Your task to perform on an android device: toggle notifications settings in the gmail app Image 0: 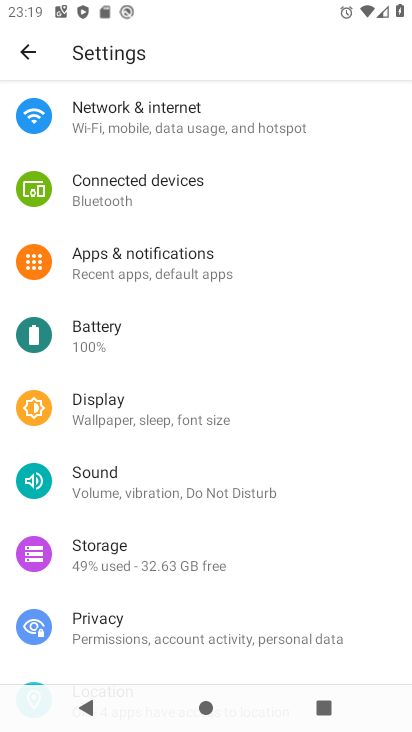
Step 0: press home button
Your task to perform on an android device: toggle notifications settings in the gmail app Image 1: 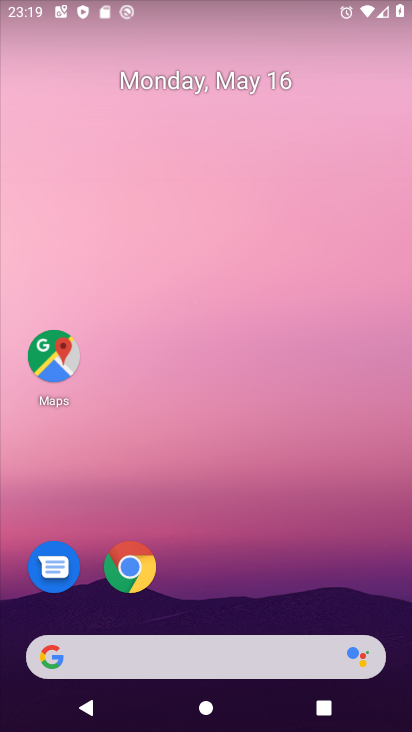
Step 1: drag from (220, 508) to (185, 217)
Your task to perform on an android device: toggle notifications settings in the gmail app Image 2: 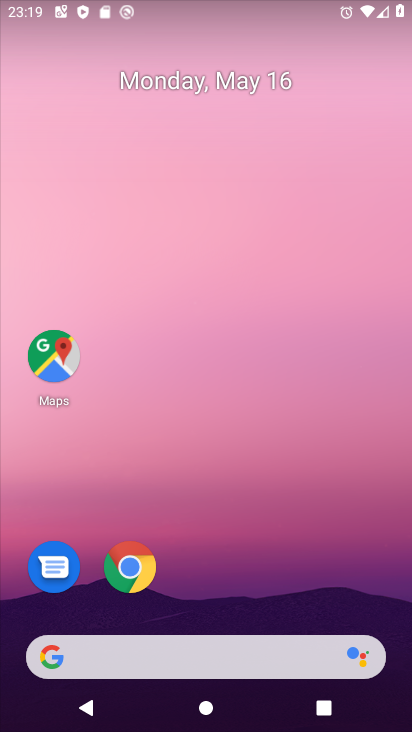
Step 2: drag from (230, 475) to (185, 123)
Your task to perform on an android device: toggle notifications settings in the gmail app Image 3: 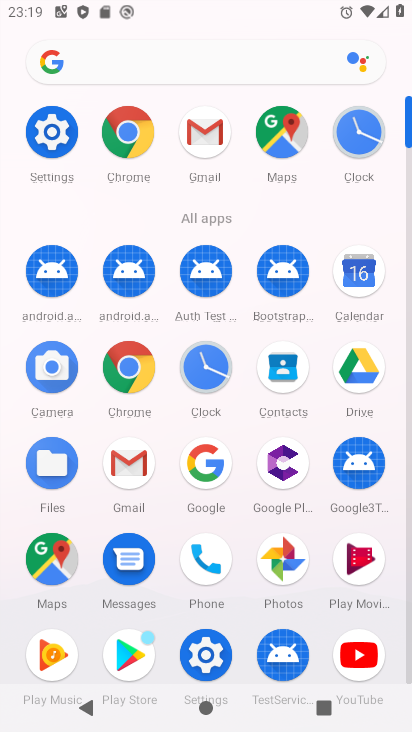
Step 3: click (125, 452)
Your task to perform on an android device: toggle notifications settings in the gmail app Image 4: 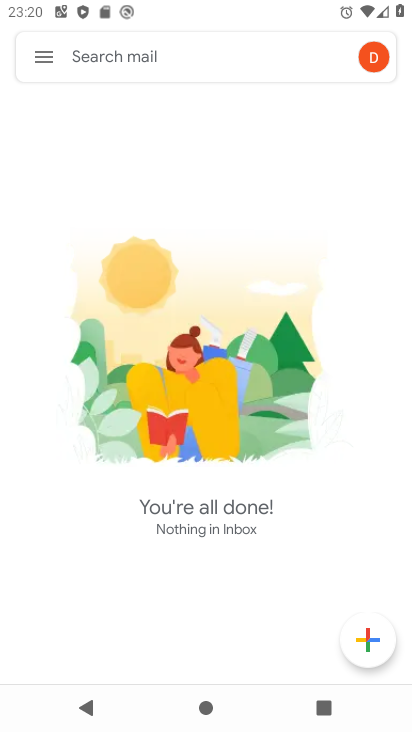
Step 4: click (42, 55)
Your task to perform on an android device: toggle notifications settings in the gmail app Image 5: 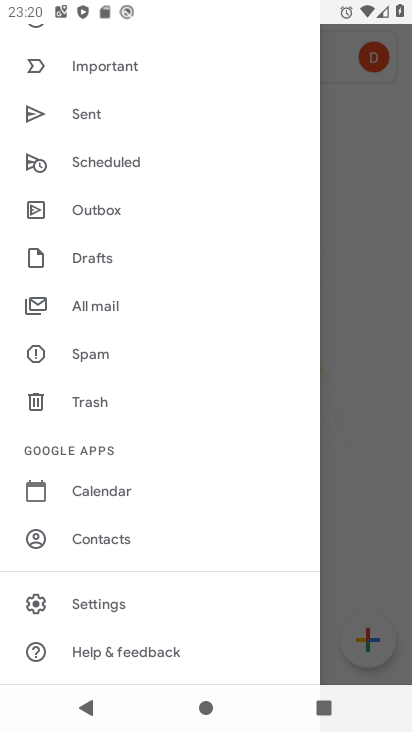
Step 5: click (102, 601)
Your task to perform on an android device: toggle notifications settings in the gmail app Image 6: 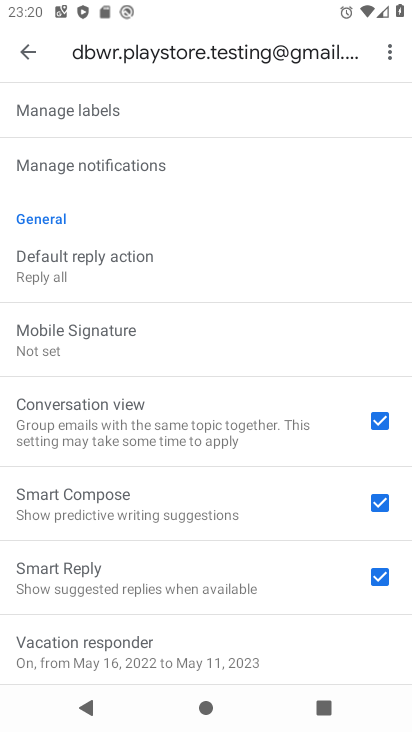
Step 6: drag from (193, 506) to (164, 250)
Your task to perform on an android device: toggle notifications settings in the gmail app Image 7: 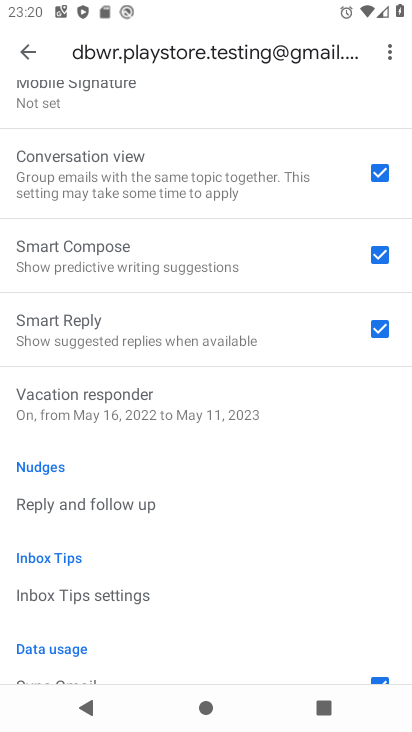
Step 7: drag from (191, 487) to (190, 293)
Your task to perform on an android device: toggle notifications settings in the gmail app Image 8: 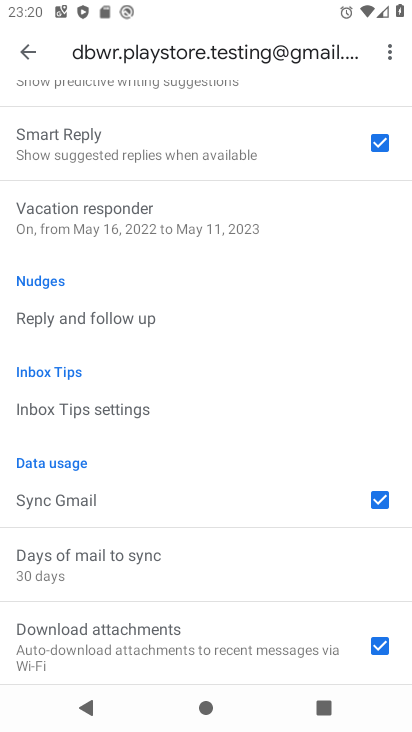
Step 8: click (22, 50)
Your task to perform on an android device: toggle notifications settings in the gmail app Image 9: 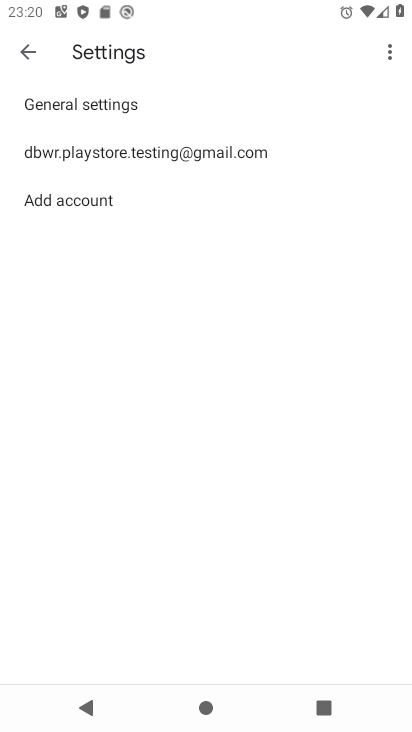
Step 9: click (97, 101)
Your task to perform on an android device: toggle notifications settings in the gmail app Image 10: 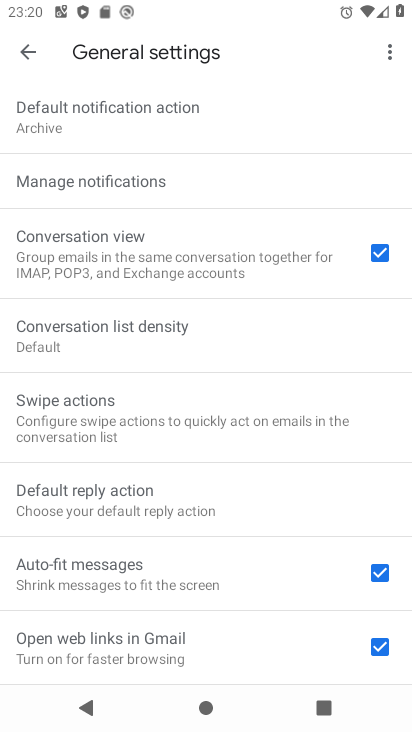
Step 10: click (89, 177)
Your task to perform on an android device: toggle notifications settings in the gmail app Image 11: 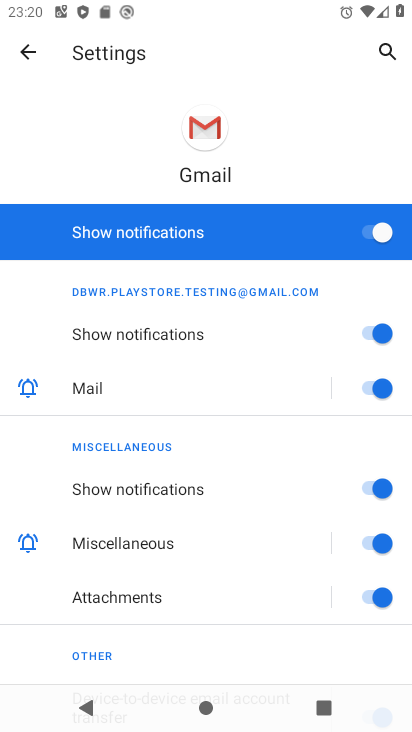
Step 11: click (377, 238)
Your task to perform on an android device: toggle notifications settings in the gmail app Image 12: 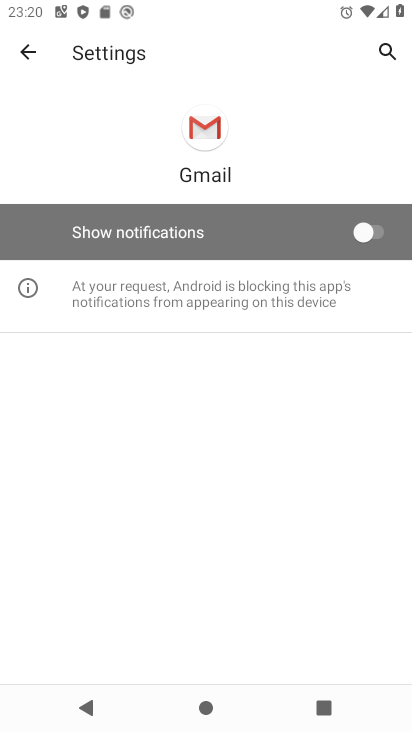
Step 12: task complete